Your task to perform on an android device: Go to Maps Image 0: 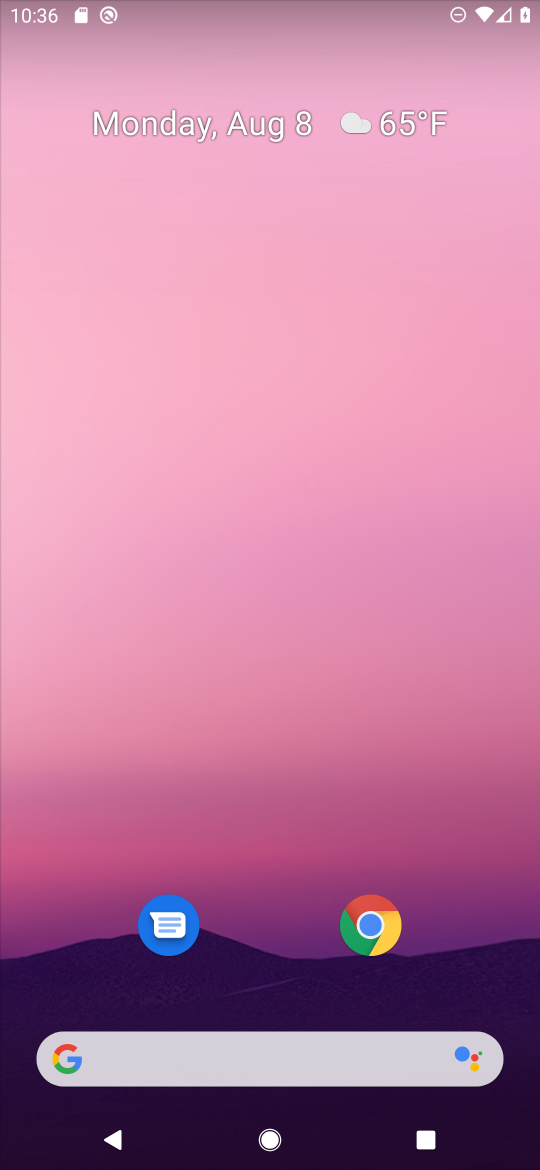
Step 0: drag from (256, 947) to (357, 173)
Your task to perform on an android device: Go to Maps Image 1: 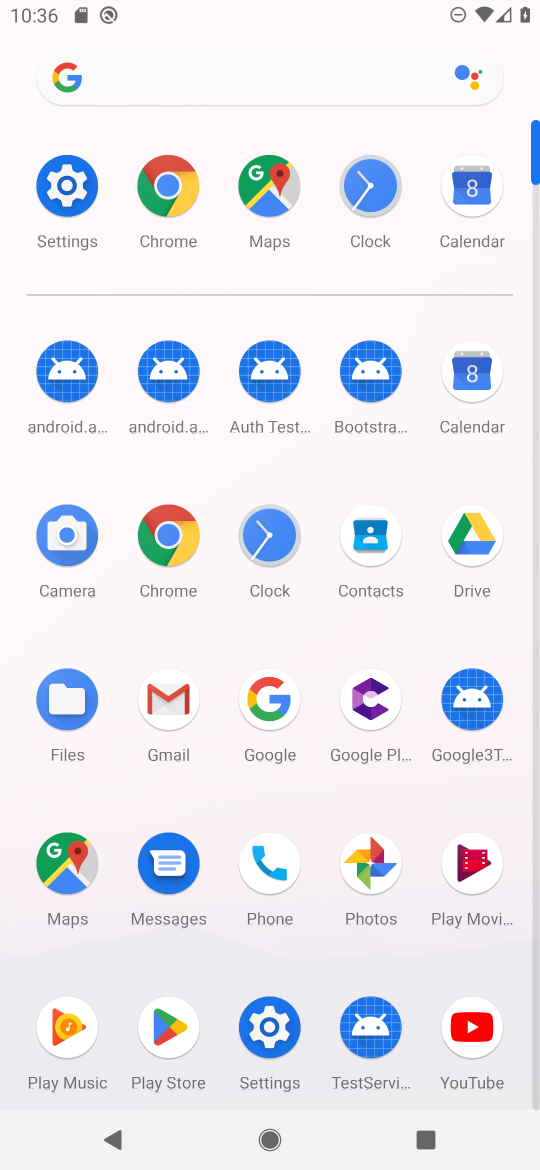
Step 1: click (59, 875)
Your task to perform on an android device: Go to Maps Image 2: 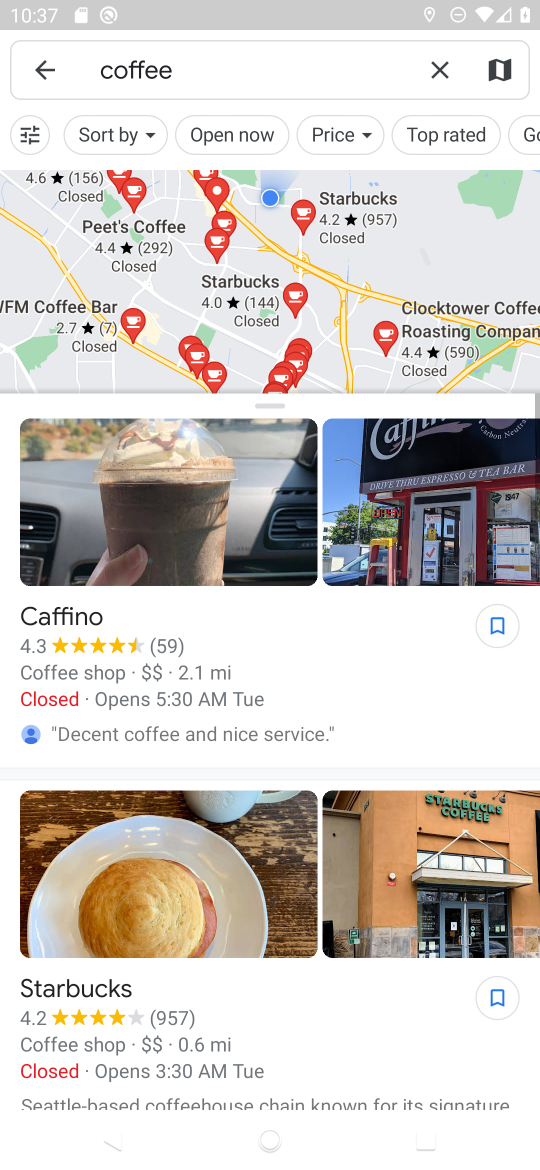
Step 2: task complete